Your task to perform on an android device: Is it going to rain tomorrow? Image 0: 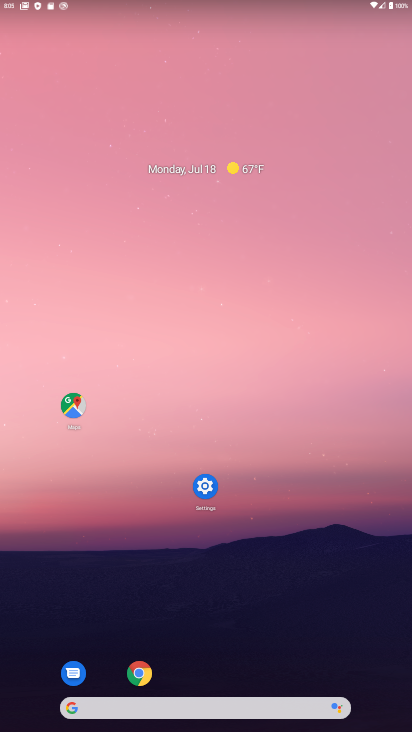
Step 0: drag from (220, 689) to (218, 368)
Your task to perform on an android device: Is it going to rain tomorrow? Image 1: 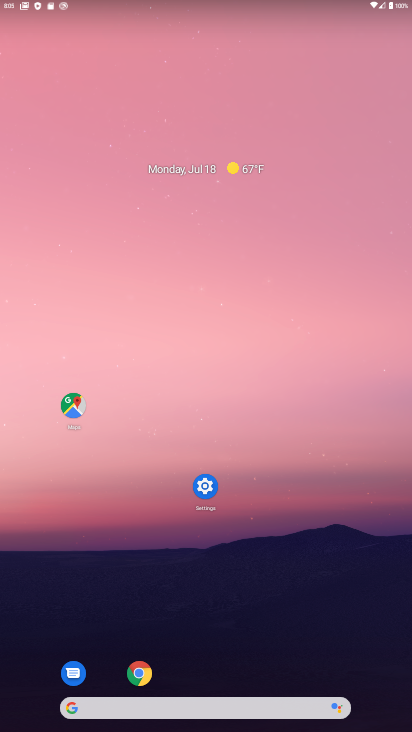
Step 1: drag from (209, 709) to (181, 223)
Your task to perform on an android device: Is it going to rain tomorrow? Image 2: 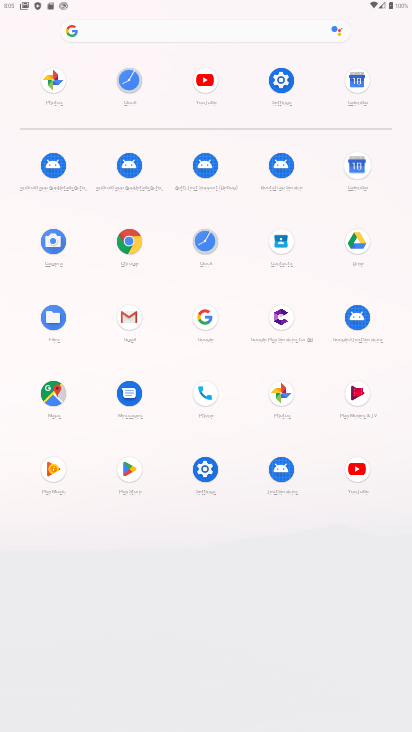
Step 2: click (203, 467)
Your task to perform on an android device: Is it going to rain tomorrow? Image 3: 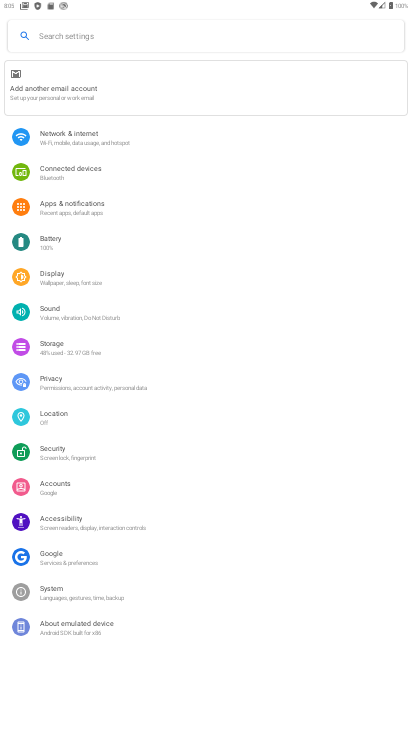
Step 3: press back button
Your task to perform on an android device: Is it going to rain tomorrow? Image 4: 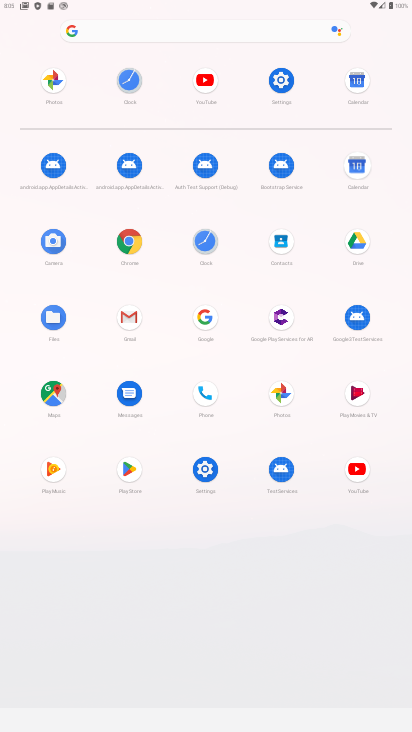
Step 4: click (130, 245)
Your task to perform on an android device: Is it going to rain tomorrow? Image 5: 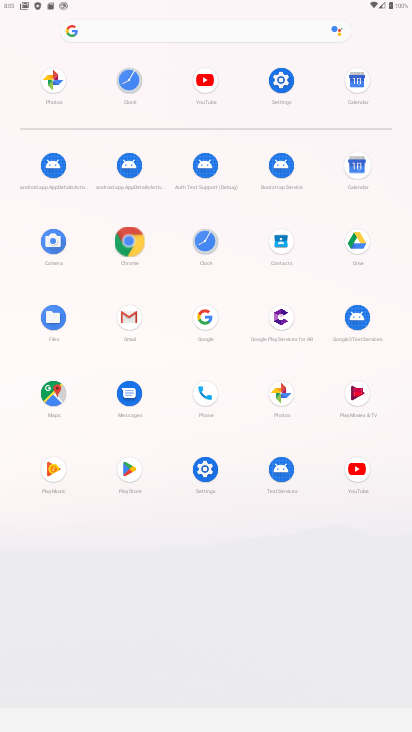
Step 5: click (130, 245)
Your task to perform on an android device: Is it going to rain tomorrow? Image 6: 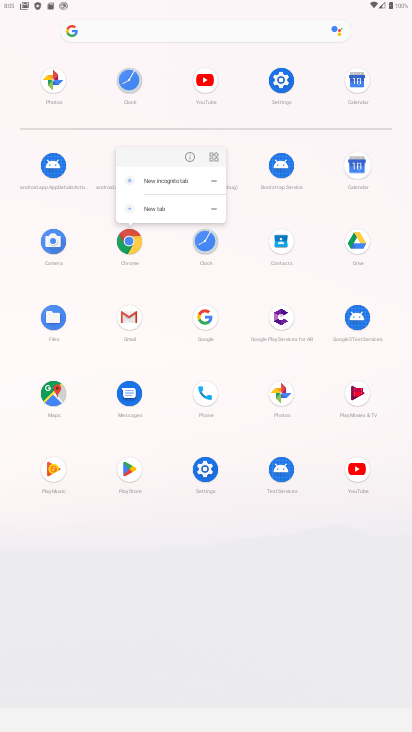
Step 6: click (130, 244)
Your task to perform on an android device: Is it going to rain tomorrow? Image 7: 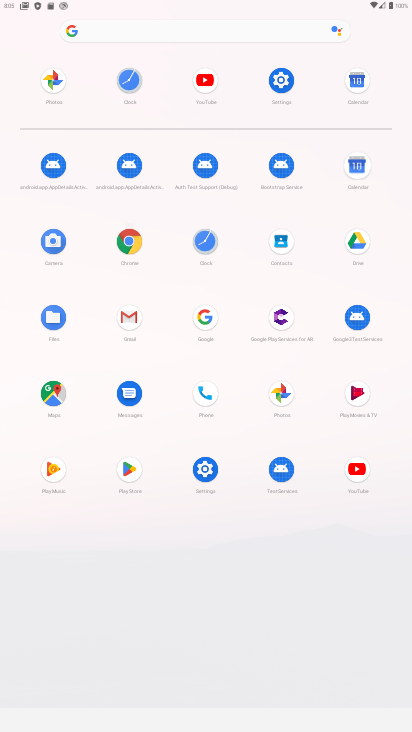
Step 7: click (132, 245)
Your task to perform on an android device: Is it going to rain tomorrow? Image 8: 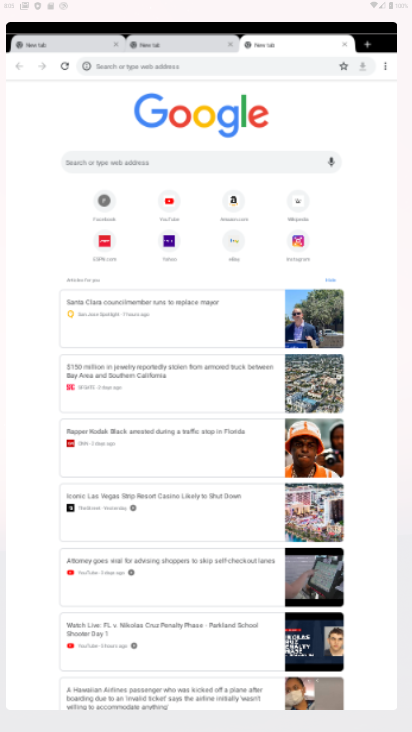
Step 8: click (132, 246)
Your task to perform on an android device: Is it going to rain tomorrow? Image 9: 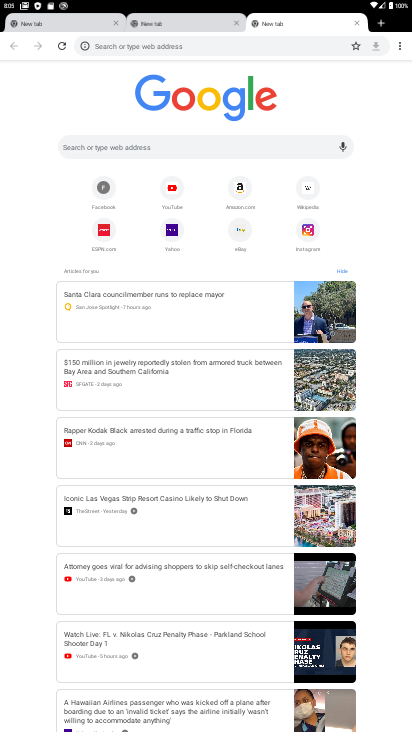
Step 9: click (139, 145)
Your task to perform on an android device: Is it going to rain tomorrow? Image 10: 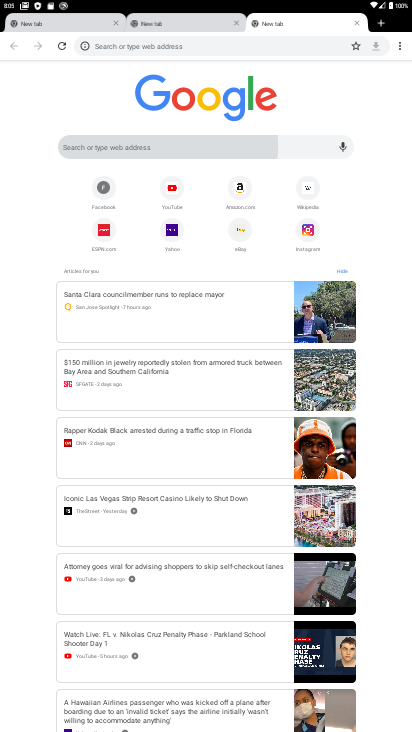
Step 10: click (135, 153)
Your task to perform on an android device: Is it going to rain tomorrow? Image 11: 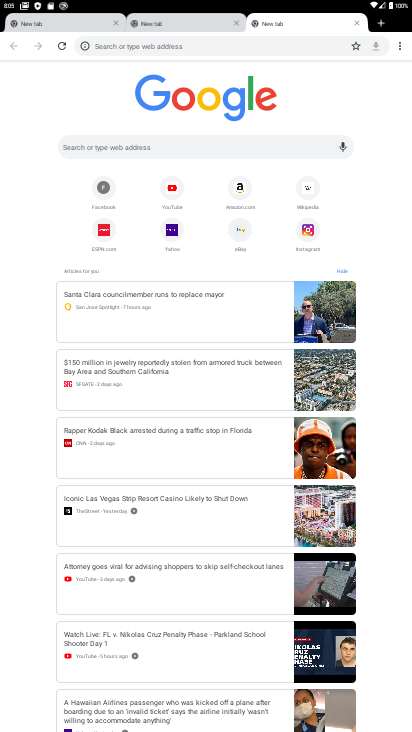
Step 11: click (69, 144)
Your task to perform on an android device: Is it going to rain tomorrow? Image 12: 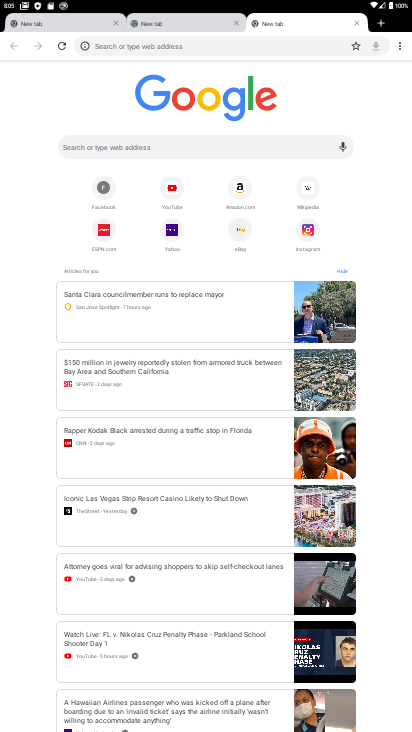
Step 12: click (69, 144)
Your task to perform on an android device: Is it going to rain tomorrow? Image 13: 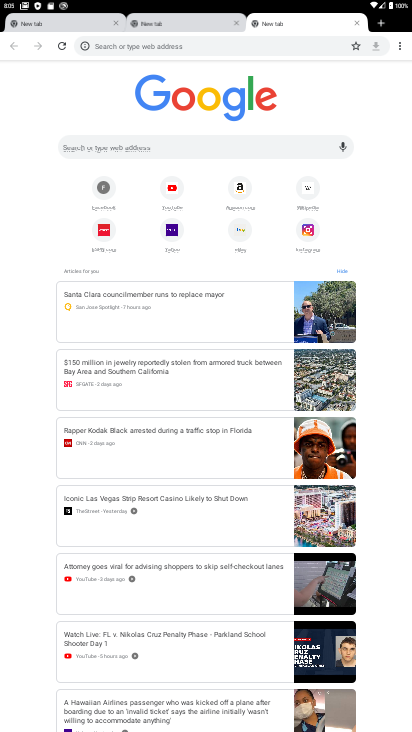
Step 13: click (106, 44)
Your task to perform on an android device: Is it going to rain tomorrow? Image 14: 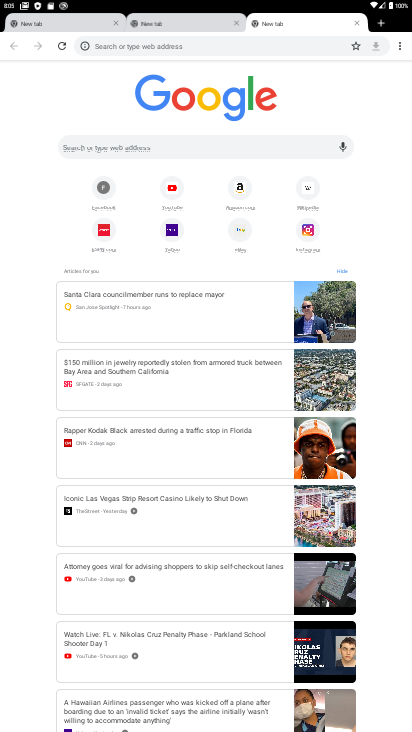
Step 14: click (68, 146)
Your task to perform on an android device: Is it going to rain tomorrow? Image 15: 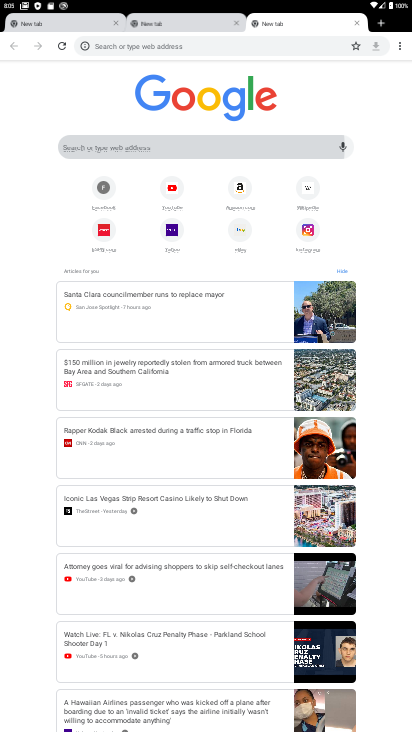
Step 15: click (74, 148)
Your task to perform on an android device: Is it going to rain tomorrow? Image 16: 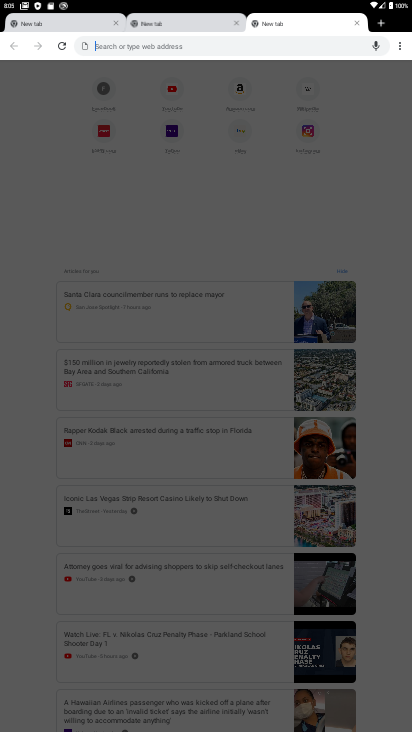
Step 16: click (93, 151)
Your task to perform on an android device: Is it going to rain tomorrow? Image 17: 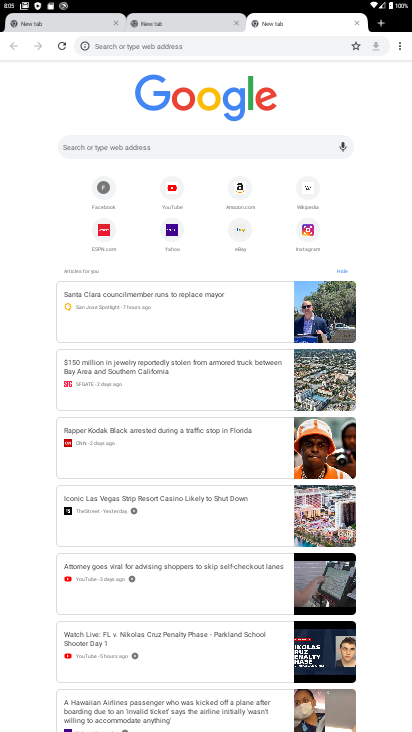
Step 17: click (118, 139)
Your task to perform on an android device: Is it going to rain tomorrow? Image 18: 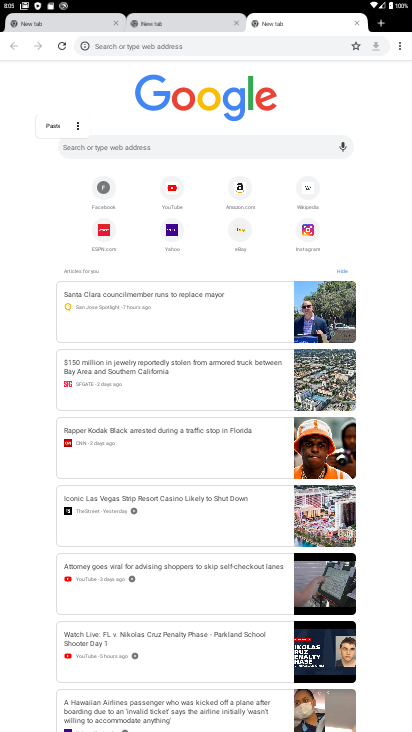
Step 18: click (64, 132)
Your task to perform on an android device: Is it going to rain tomorrow? Image 19: 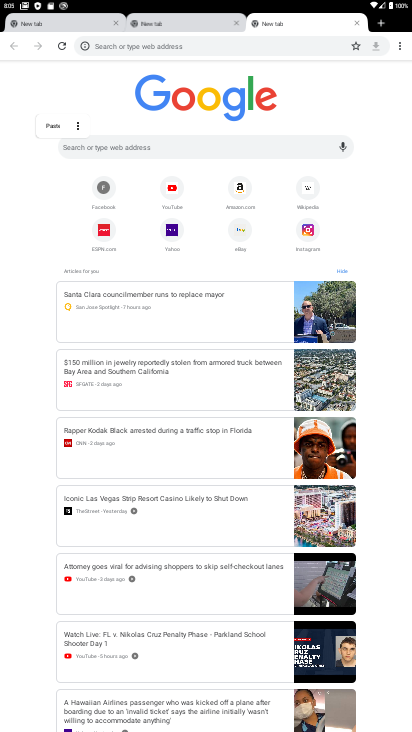
Step 19: click (107, 147)
Your task to perform on an android device: Is it going to rain tomorrow? Image 20: 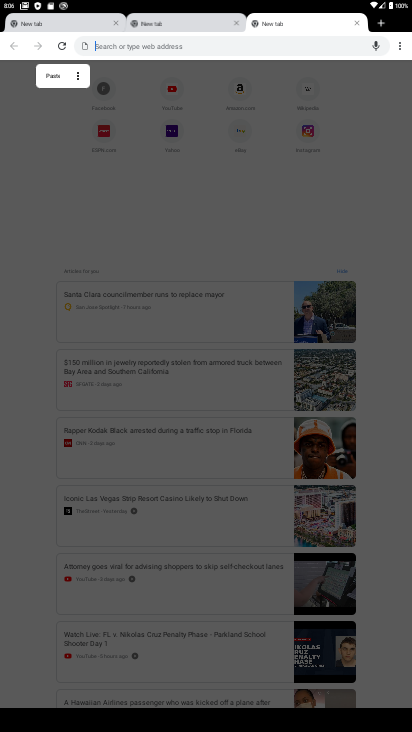
Step 20: type "is it going to rain to morrow?"
Your task to perform on an android device: Is it going to rain tomorrow? Image 21: 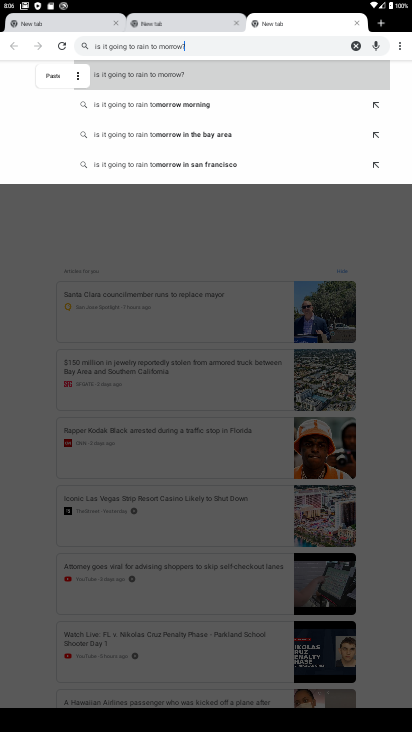
Step 21: click (213, 98)
Your task to perform on an android device: Is it going to rain tomorrow? Image 22: 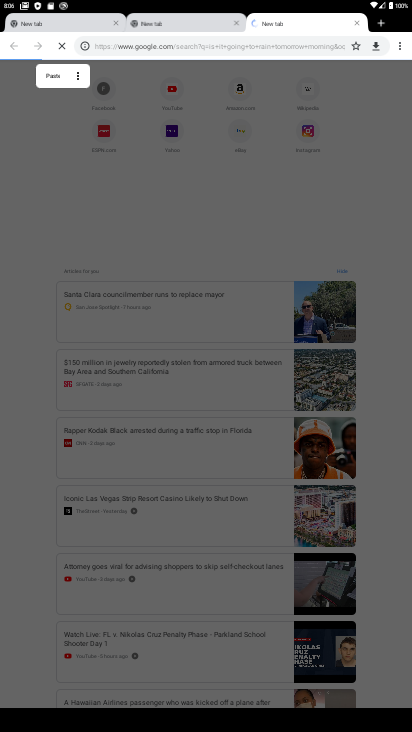
Step 22: click (213, 98)
Your task to perform on an android device: Is it going to rain tomorrow? Image 23: 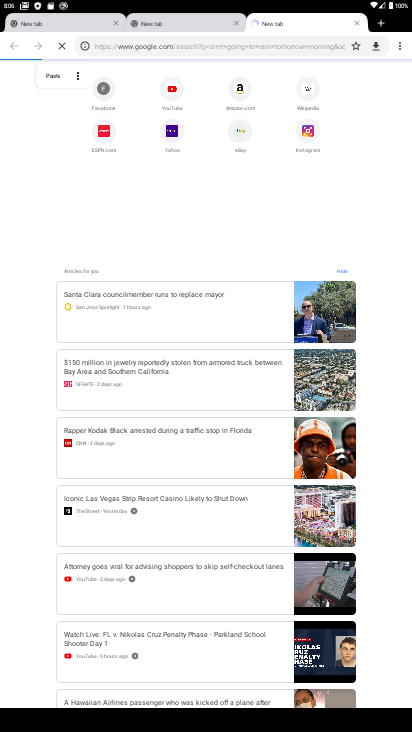
Step 23: click (213, 98)
Your task to perform on an android device: Is it going to rain tomorrow? Image 24: 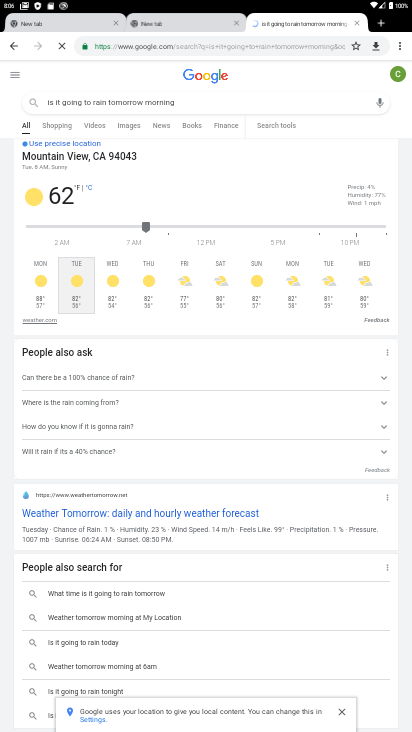
Step 24: task complete